Your task to perform on an android device: toggle pop-ups in chrome Image 0: 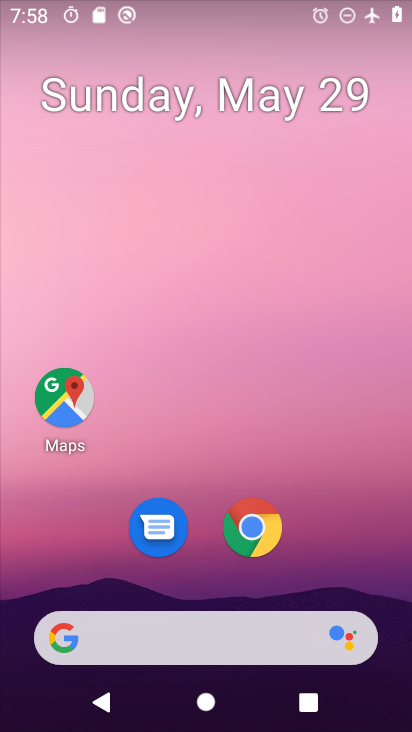
Step 0: drag from (380, 645) to (295, 23)
Your task to perform on an android device: toggle pop-ups in chrome Image 1: 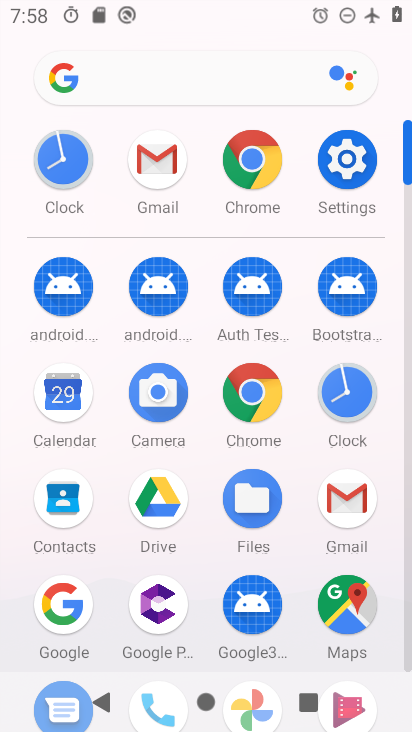
Step 1: click (241, 170)
Your task to perform on an android device: toggle pop-ups in chrome Image 2: 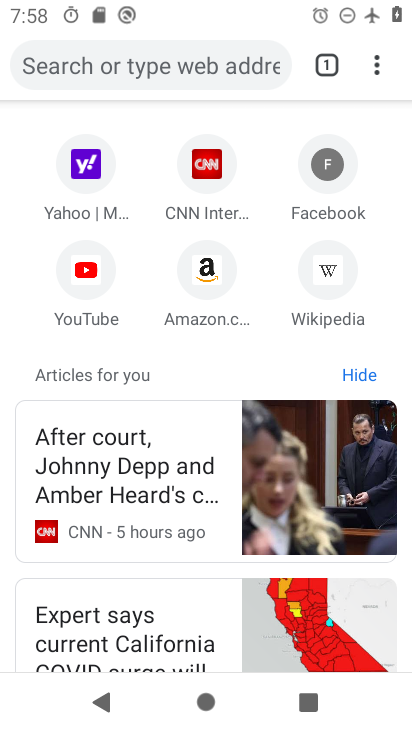
Step 2: click (380, 62)
Your task to perform on an android device: toggle pop-ups in chrome Image 3: 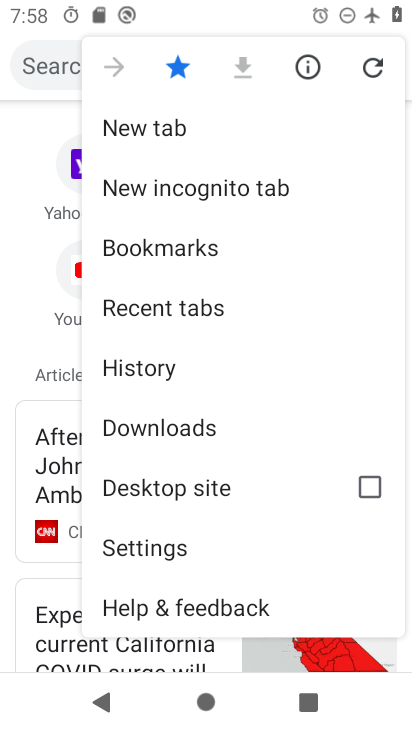
Step 3: click (178, 542)
Your task to perform on an android device: toggle pop-ups in chrome Image 4: 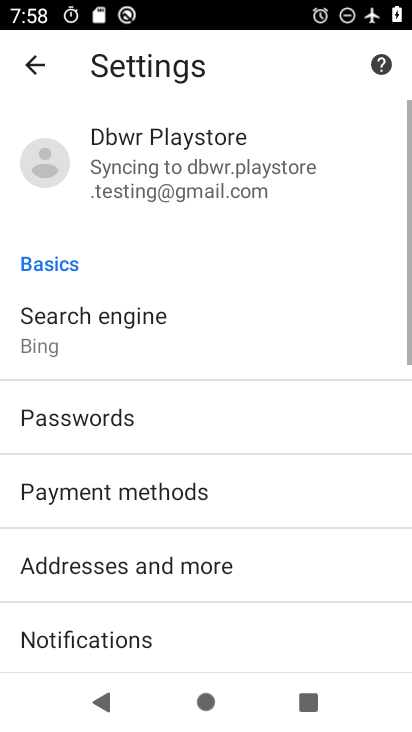
Step 4: drag from (125, 627) to (191, 192)
Your task to perform on an android device: toggle pop-ups in chrome Image 5: 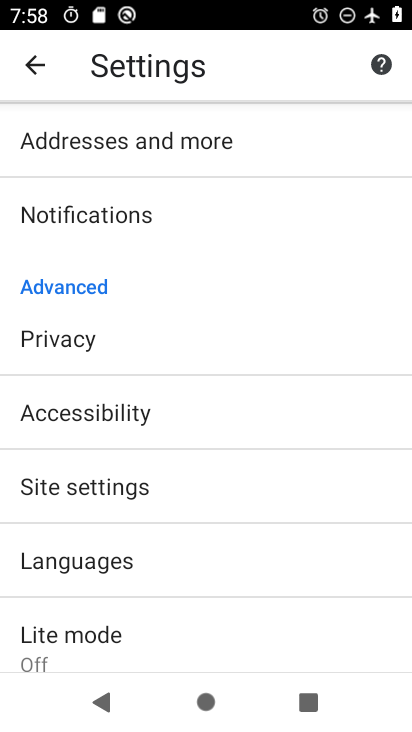
Step 5: click (143, 479)
Your task to perform on an android device: toggle pop-ups in chrome Image 6: 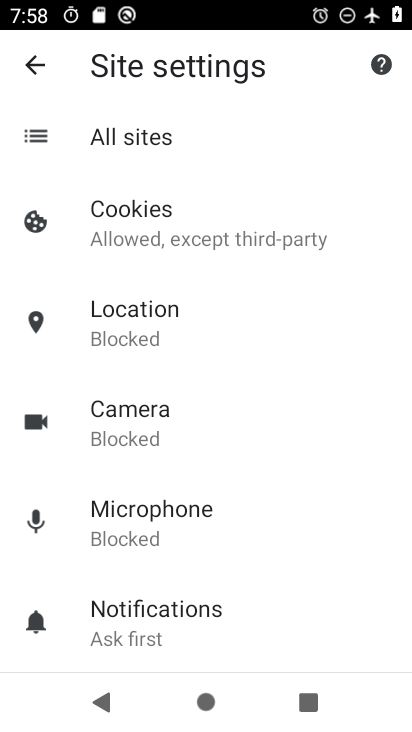
Step 6: drag from (147, 605) to (206, 231)
Your task to perform on an android device: toggle pop-ups in chrome Image 7: 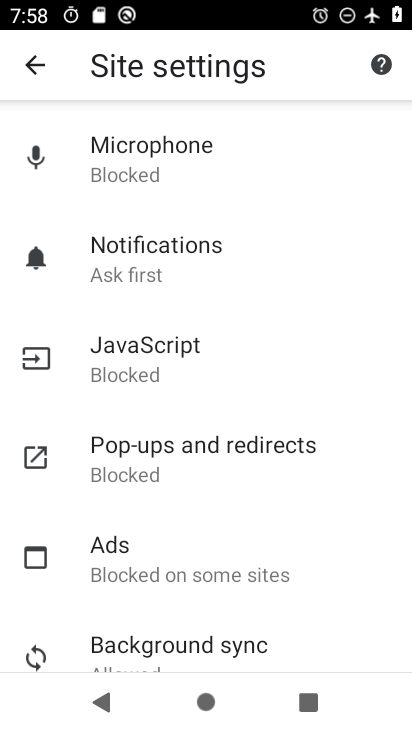
Step 7: click (202, 483)
Your task to perform on an android device: toggle pop-ups in chrome Image 8: 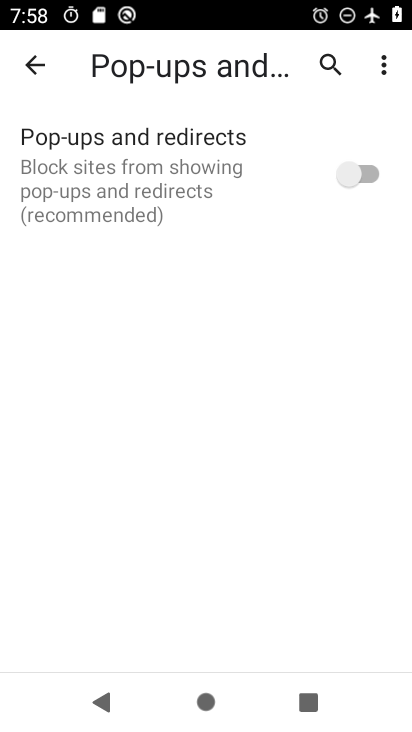
Step 8: click (327, 185)
Your task to perform on an android device: toggle pop-ups in chrome Image 9: 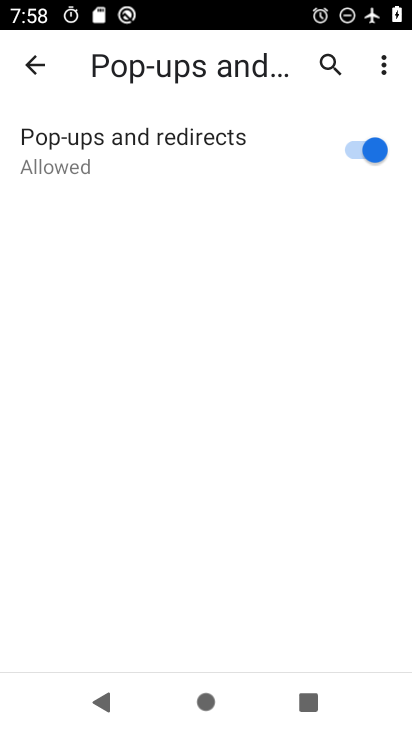
Step 9: task complete